Your task to perform on an android device: delete the emails in spam in the gmail app Image 0: 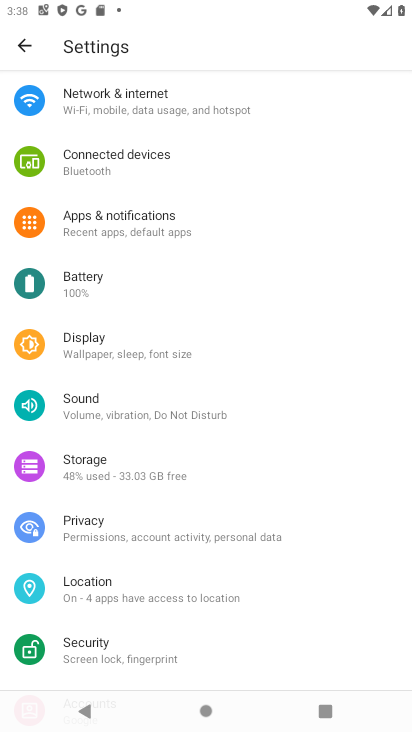
Step 0: press home button
Your task to perform on an android device: delete the emails in spam in the gmail app Image 1: 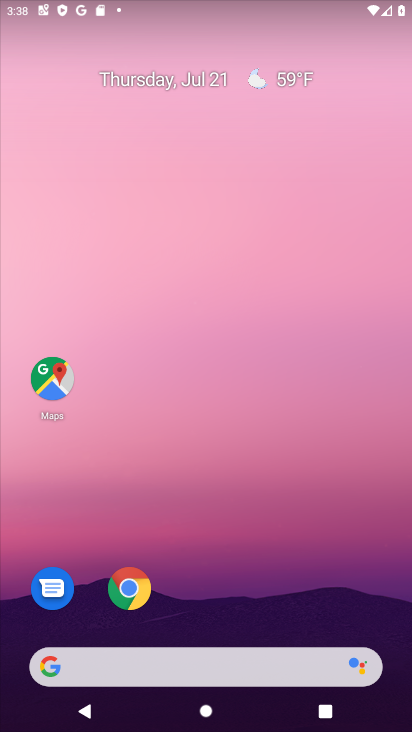
Step 1: drag from (250, 720) to (228, 154)
Your task to perform on an android device: delete the emails in spam in the gmail app Image 2: 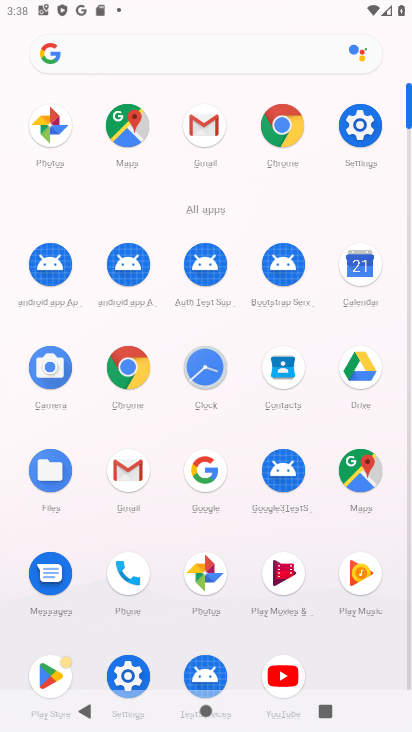
Step 2: click (131, 473)
Your task to perform on an android device: delete the emails in spam in the gmail app Image 3: 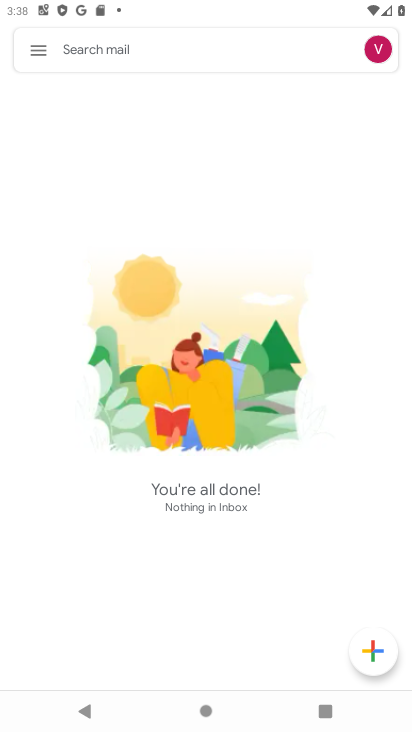
Step 3: click (28, 41)
Your task to perform on an android device: delete the emails in spam in the gmail app Image 4: 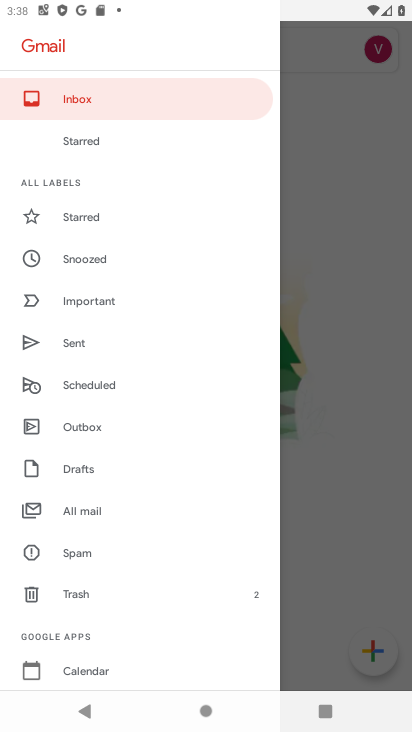
Step 4: click (78, 551)
Your task to perform on an android device: delete the emails in spam in the gmail app Image 5: 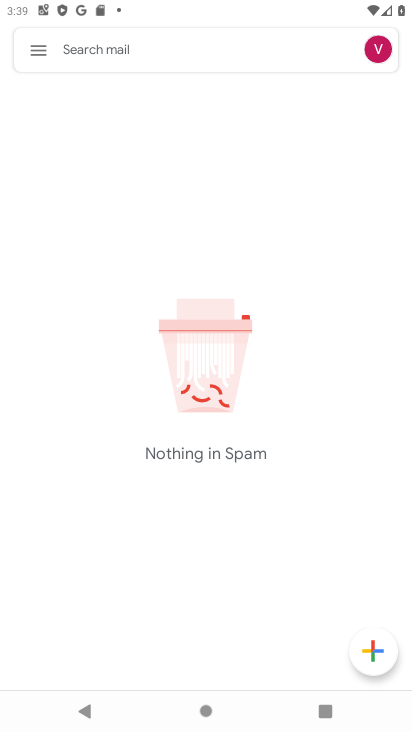
Step 5: task complete